Your task to perform on an android device: create a new album in the google photos Image 0: 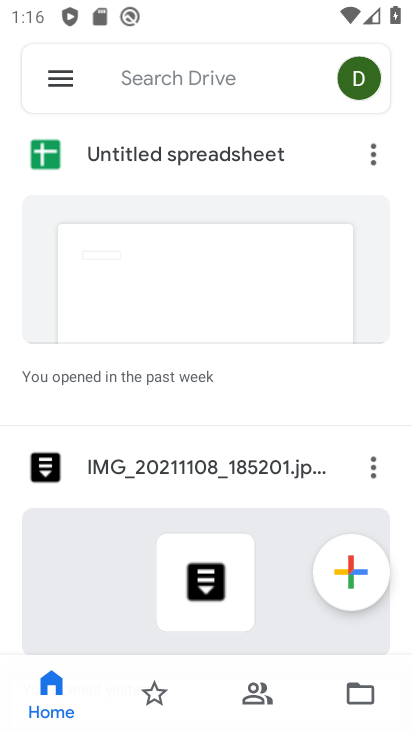
Step 0: press home button
Your task to perform on an android device: create a new album in the google photos Image 1: 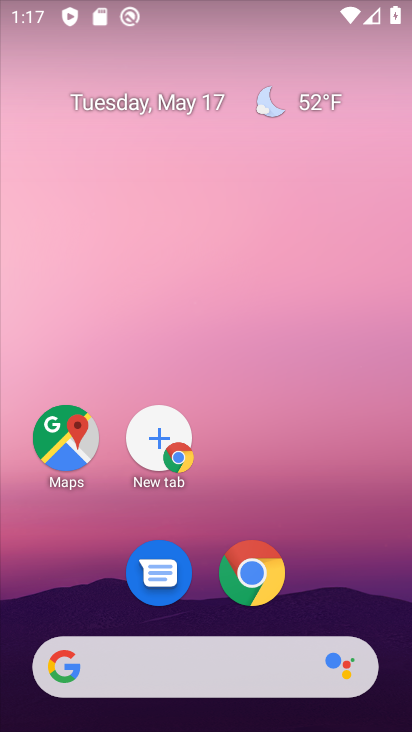
Step 1: drag from (333, 585) to (321, 235)
Your task to perform on an android device: create a new album in the google photos Image 2: 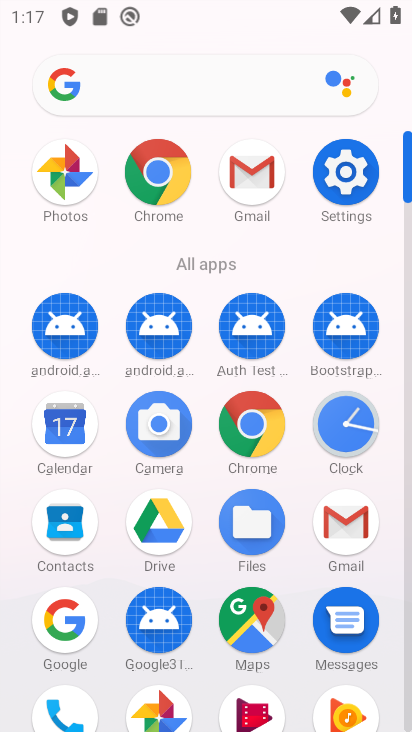
Step 2: click (62, 202)
Your task to perform on an android device: create a new album in the google photos Image 3: 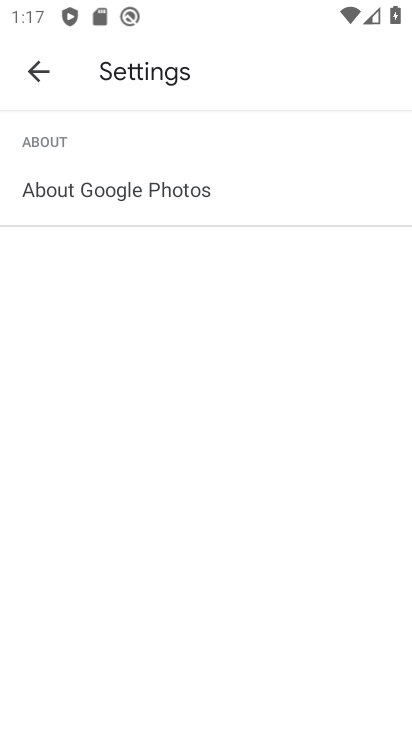
Step 3: press back button
Your task to perform on an android device: create a new album in the google photos Image 4: 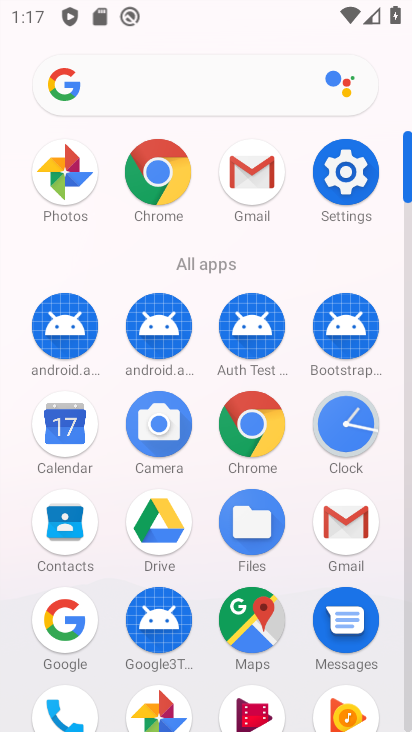
Step 4: click (57, 189)
Your task to perform on an android device: create a new album in the google photos Image 5: 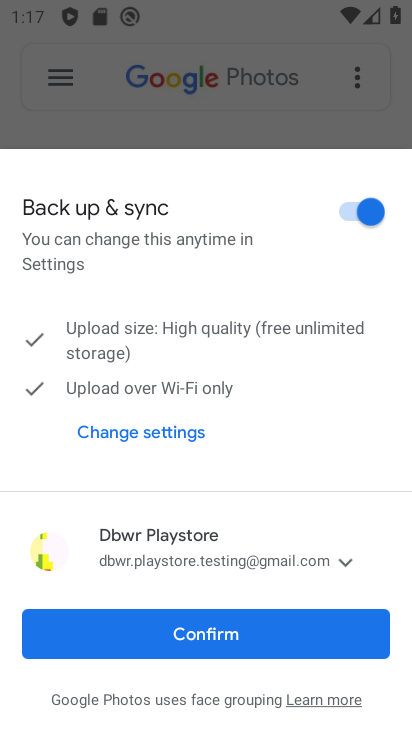
Step 5: click (158, 646)
Your task to perform on an android device: create a new album in the google photos Image 6: 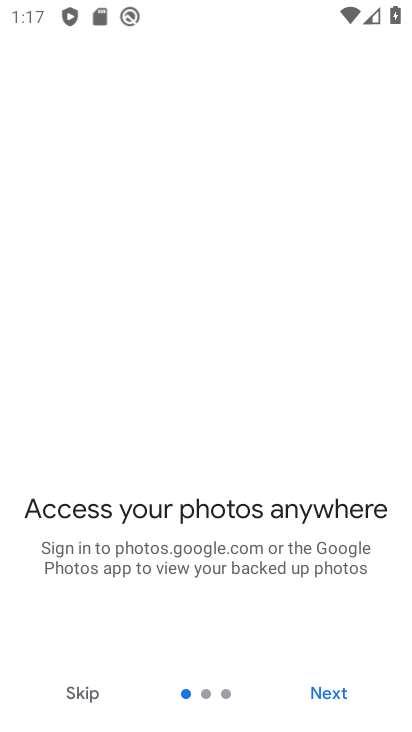
Step 6: click (331, 700)
Your task to perform on an android device: create a new album in the google photos Image 7: 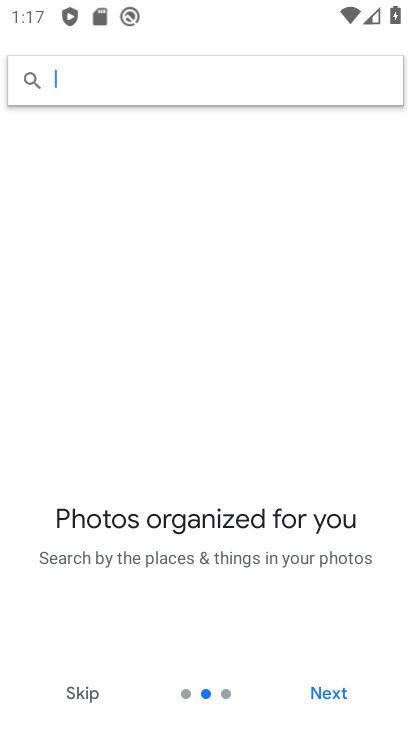
Step 7: click (332, 699)
Your task to perform on an android device: create a new album in the google photos Image 8: 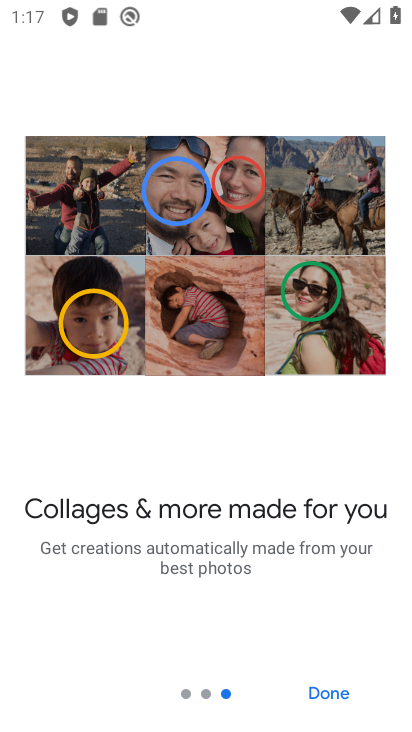
Step 8: click (333, 697)
Your task to perform on an android device: create a new album in the google photos Image 9: 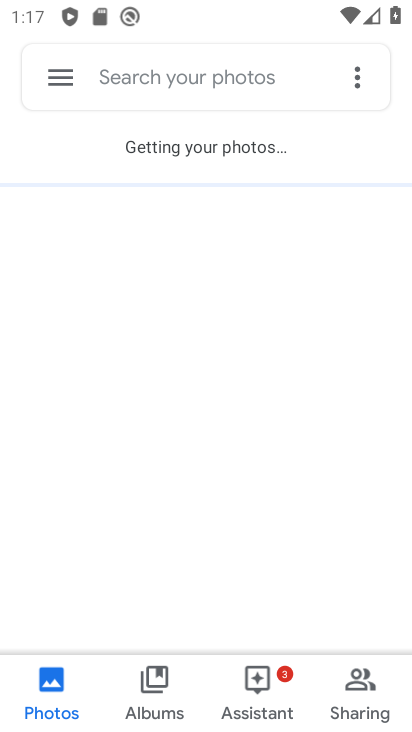
Step 9: click (149, 695)
Your task to perform on an android device: create a new album in the google photos Image 10: 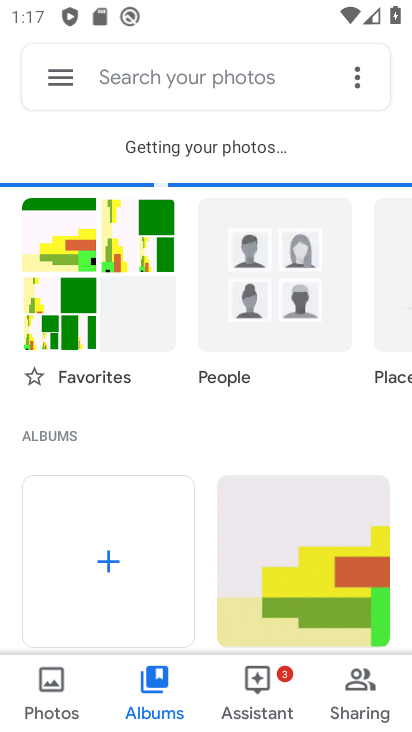
Step 10: click (119, 572)
Your task to perform on an android device: create a new album in the google photos Image 11: 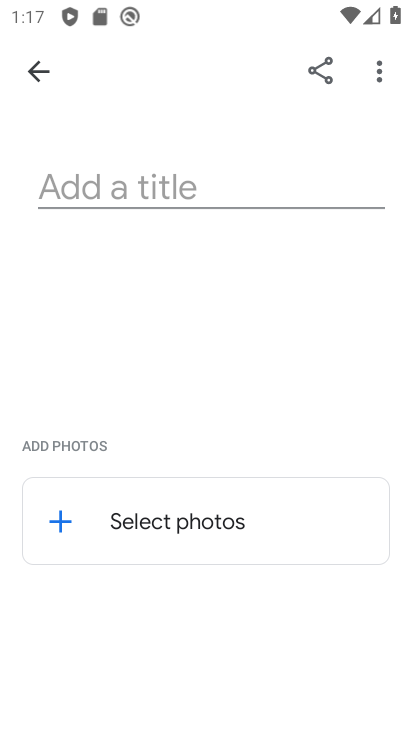
Step 11: click (147, 183)
Your task to perform on an android device: create a new album in the google photos Image 12: 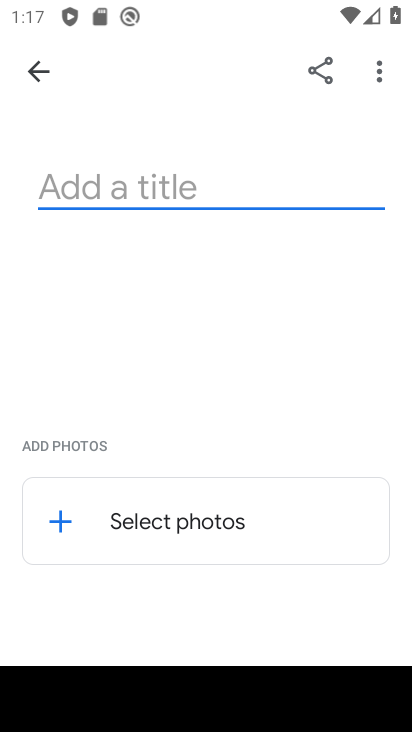
Step 12: type "jhgjh"
Your task to perform on an android device: create a new album in the google photos Image 13: 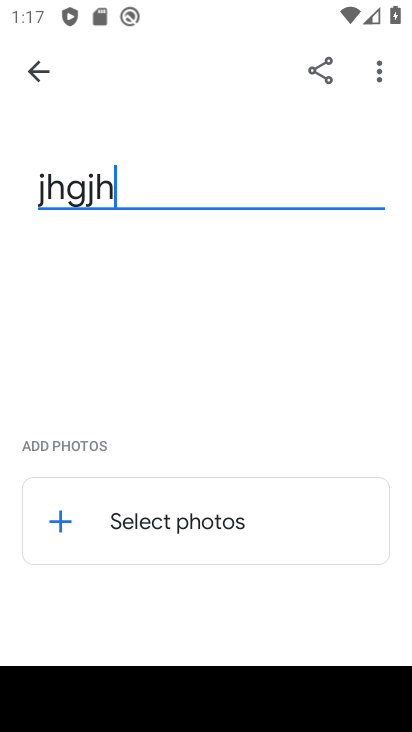
Step 13: click (151, 533)
Your task to perform on an android device: create a new album in the google photos Image 14: 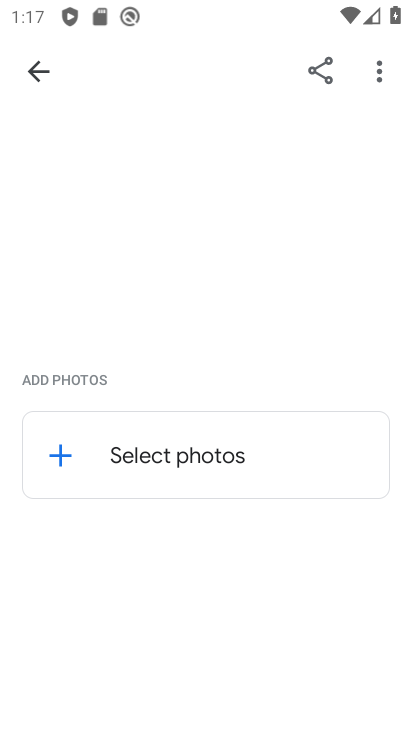
Step 14: click (69, 462)
Your task to perform on an android device: create a new album in the google photos Image 15: 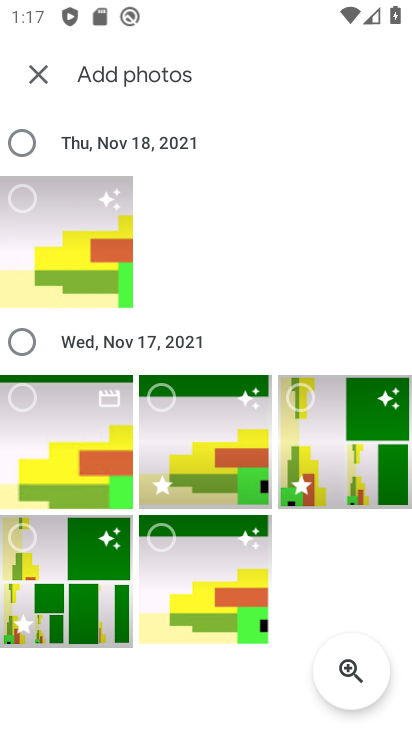
Step 15: click (40, 251)
Your task to perform on an android device: create a new album in the google photos Image 16: 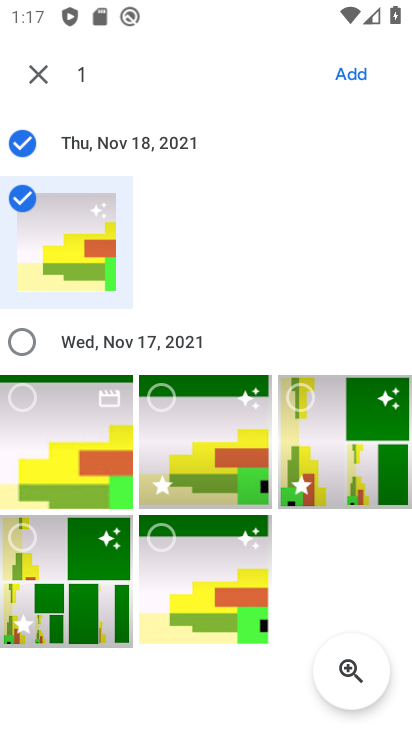
Step 16: click (371, 67)
Your task to perform on an android device: create a new album in the google photos Image 17: 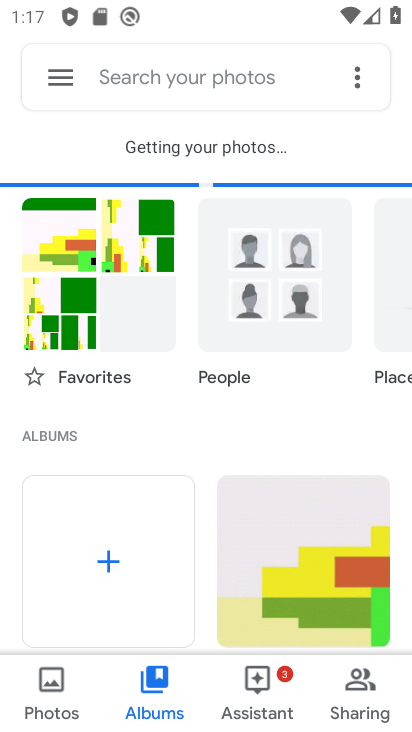
Step 17: task complete